Your task to perform on an android device: Open Google Chrome Image 0: 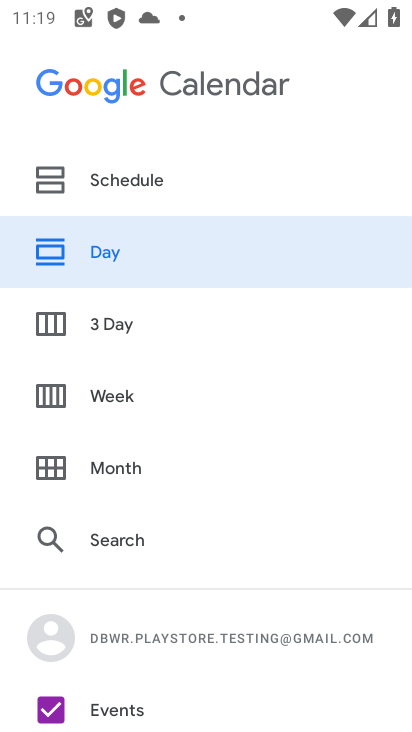
Step 0: press home button
Your task to perform on an android device: Open Google Chrome Image 1: 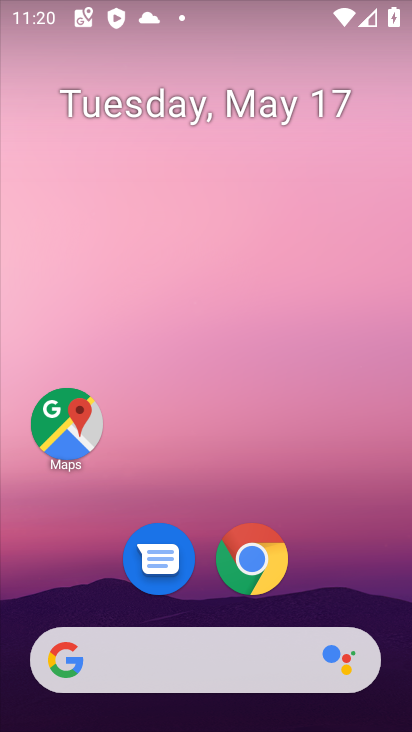
Step 1: click (257, 557)
Your task to perform on an android device: Open Google Chrome Image 2: 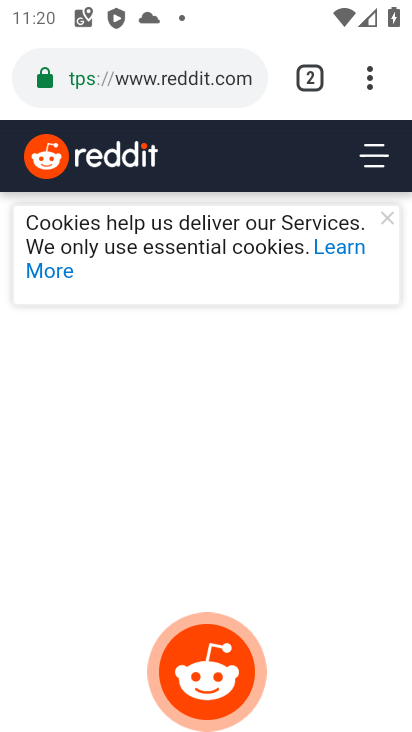
Step 2: task complete